Your task to perform on an android device: Open network settings Image 0: 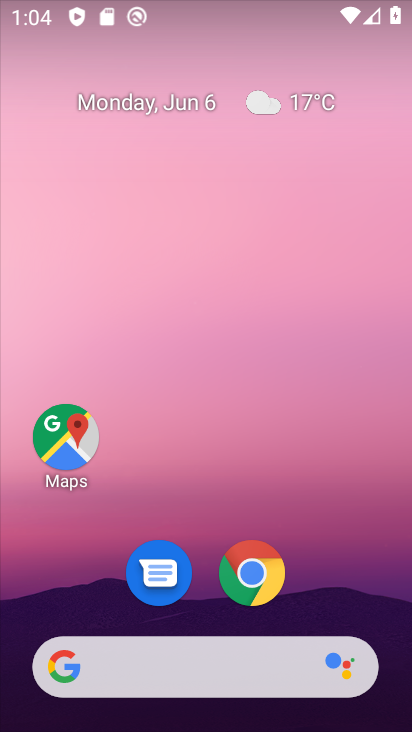
Step 0: drag from (364, 608) to (353, 189)
Your task to perform on an android device: Open network settings Image 1: 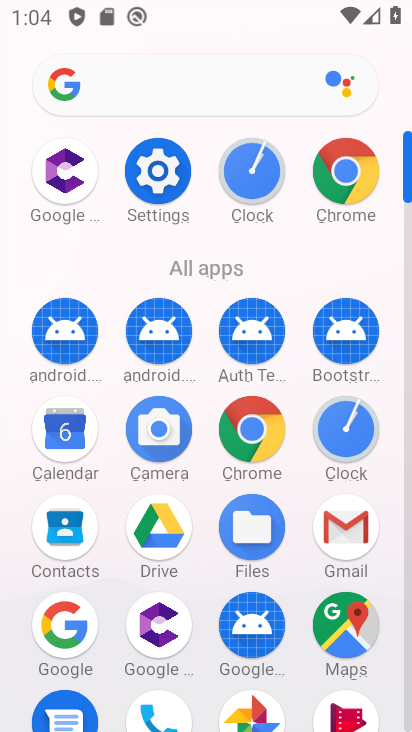
Step 1: click (165, 183)
Your task to perform on an android device: Open network settings Image 2: 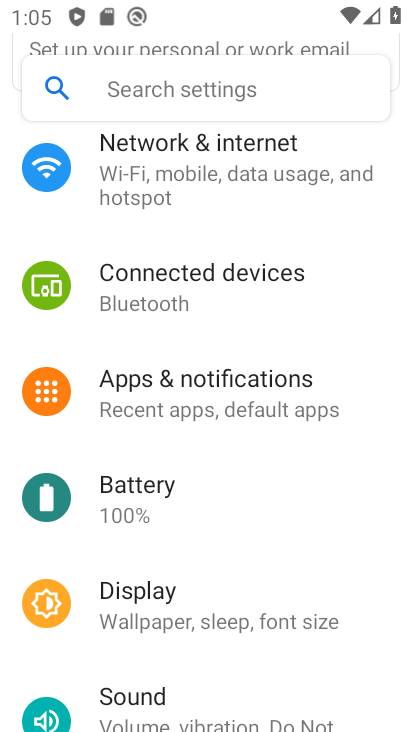
Step 2: drag from (344, 604) to (350, 511)
Your task to perform on an android device: Open network settings Image 3: 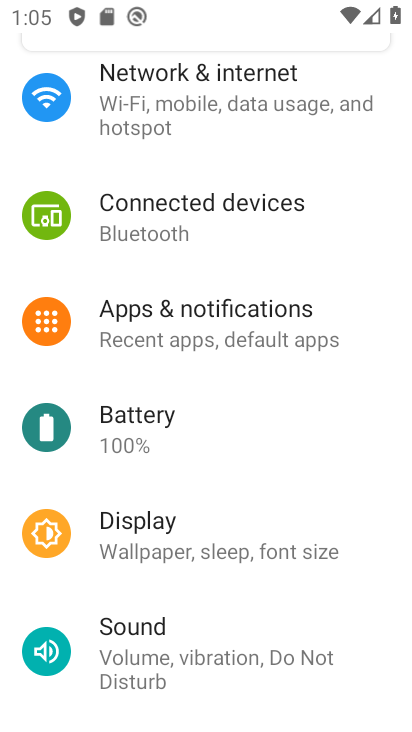
Step 3: drag from (360, 610) to (365, 493)
Your task to perform on an android device: Open network settings Image 4: 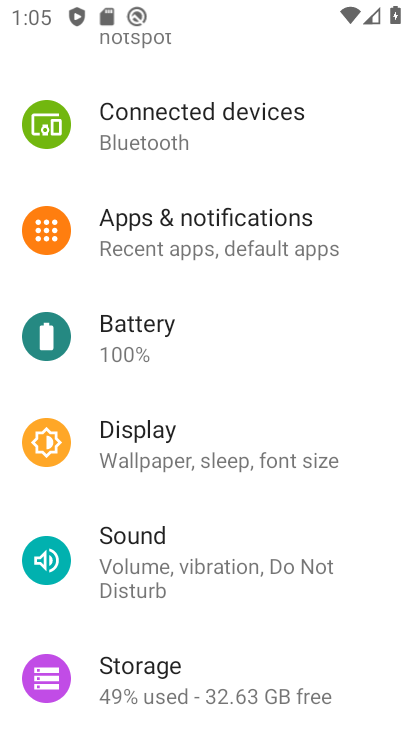
Step 4: drag from (362, 624) to (368, 469)
Your task to perform on an android device: Open network settings Image 5: 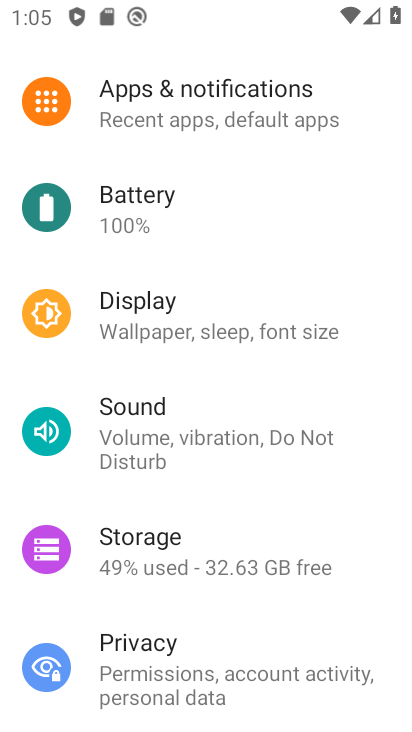
Step 5: drag from (356, 613) to (343, 426)
Your task to perform on an android device: Open network settings Image 6: 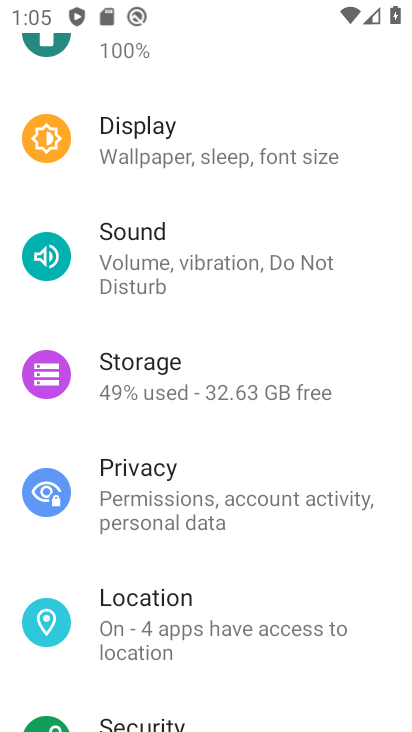
Step 6: drag from (345, 586) to (356, 411)
Your task to perform on an android device: Open network settings Image 7: 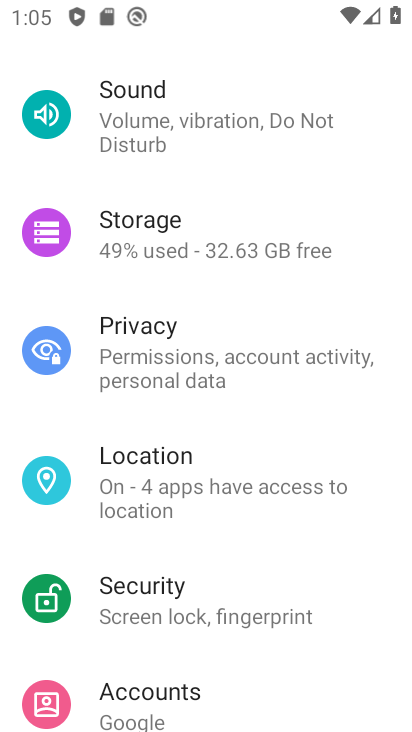
Step 7: drag from (346, 596) to (352, 419)
Your task to perform on an android device: Open network settings Image 8: 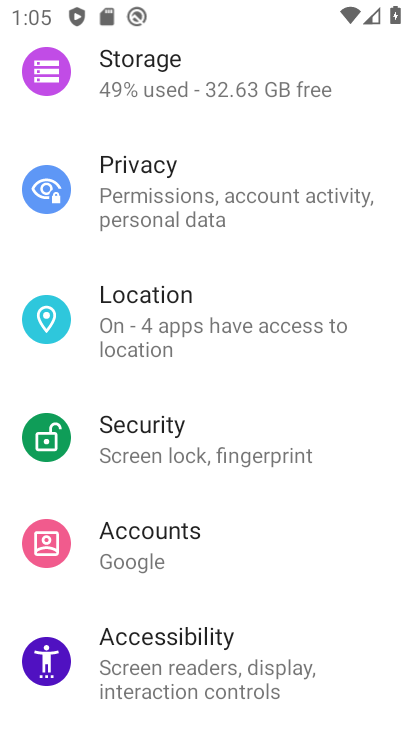
Step 8: drag from (335, 618) to (337, 401)
Your task to perform on an android device: Open network settings Image 9: 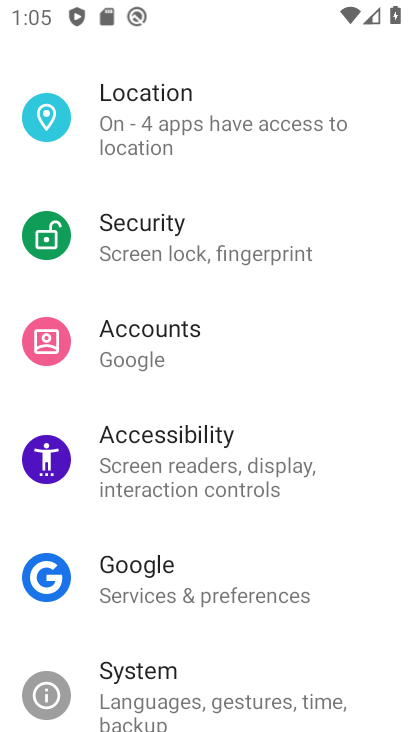
Step 9: drag from (348, 344) to (348, 486)
Your task to perform on an android device: Open network settings Image 10: 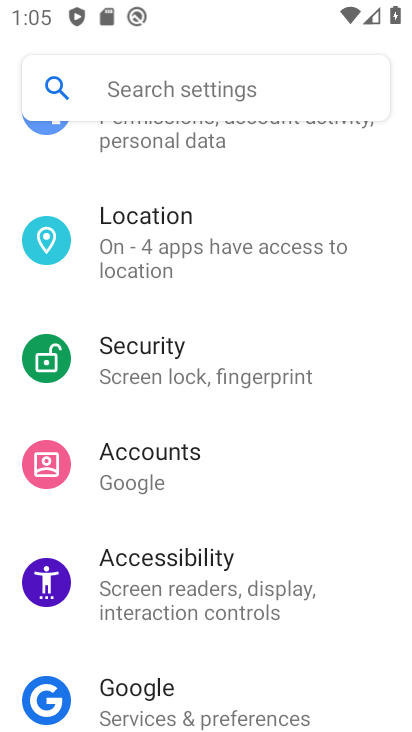
Step 10: drag from (346, 313) to (347, 456)
Your task to perform on an android device: Open network settings Image 11: 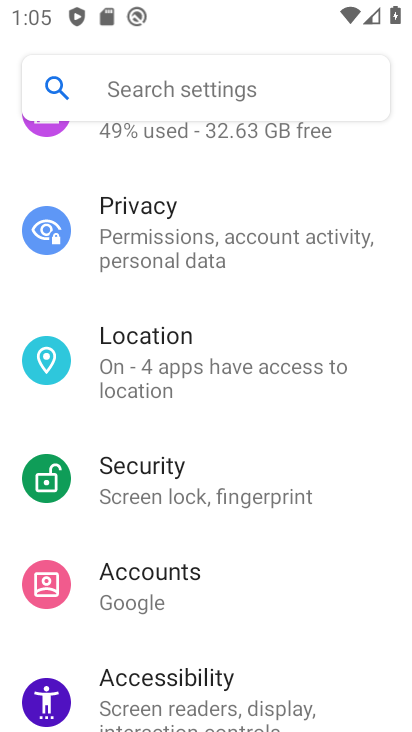
Step 11: drag from (356, 300) to (364, 407)
Your task to perform on an android device: Open network settings Image 12: 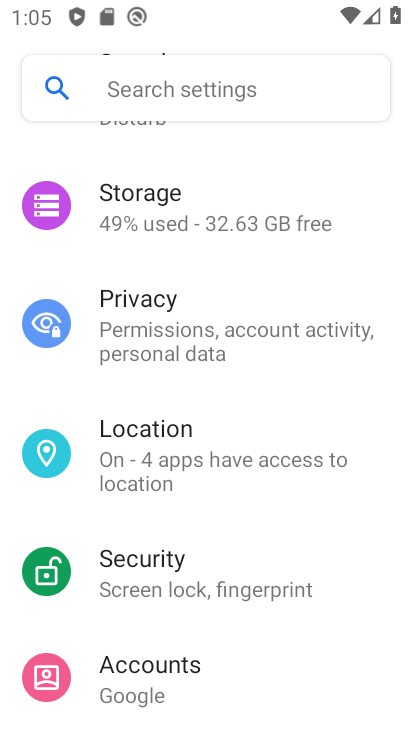
Step 12: drag from (364, 249) to (355, 384)
Your task to perform on an android device: Open network settings Image 13: 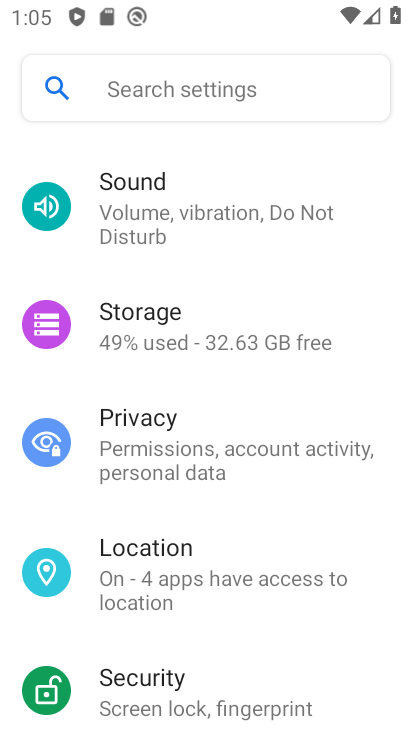
Step 13: drag from (347, 227) to (351, 351)
Your task to perform on an android device: Open network settings Image 14: 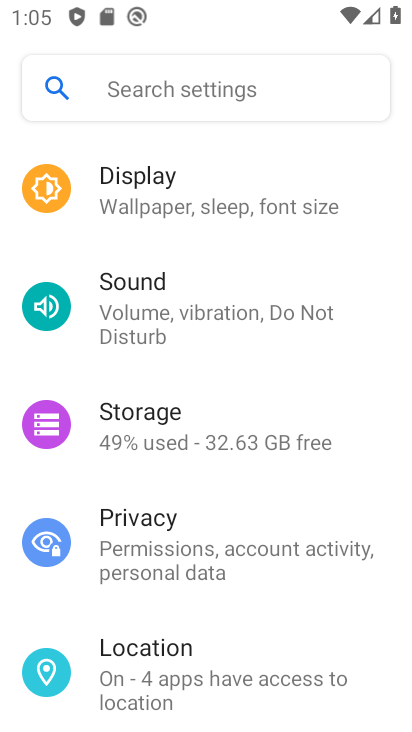
Step 14: drag from (357, 196) to (366, 329)
Your task to perform on an android device: Open network settings Image 15: 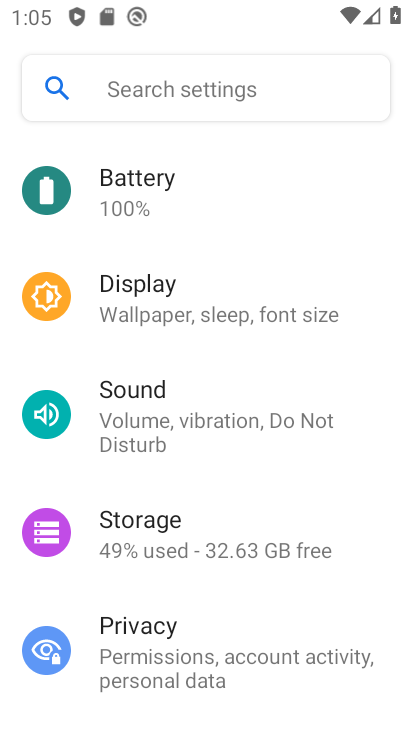
Step 15: drag from (354, 186) to (355, 362)
Your task to perform on an android device: Open network settings Image 16: 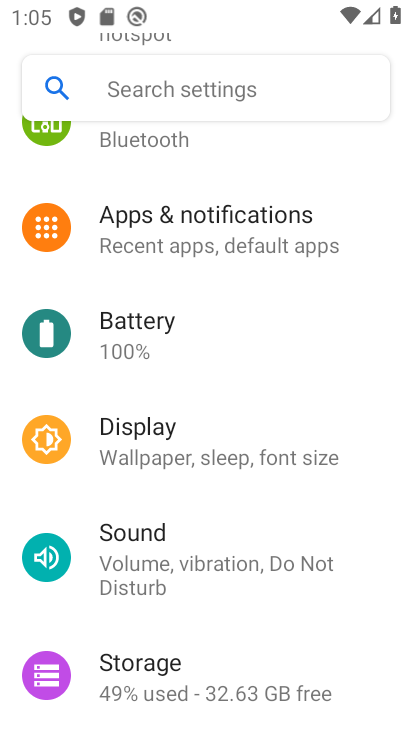
Step 16: drag from (343, 185) to (342, 339)
Your task to perform on an android device: Open network settings Image 17: 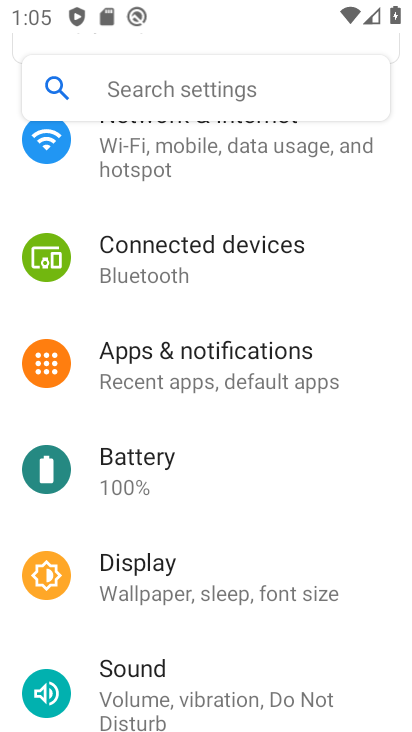
Step 17: drag from (345, 196) to (330, 353)
Your task to perform on an android device: Open network settings Image 18: 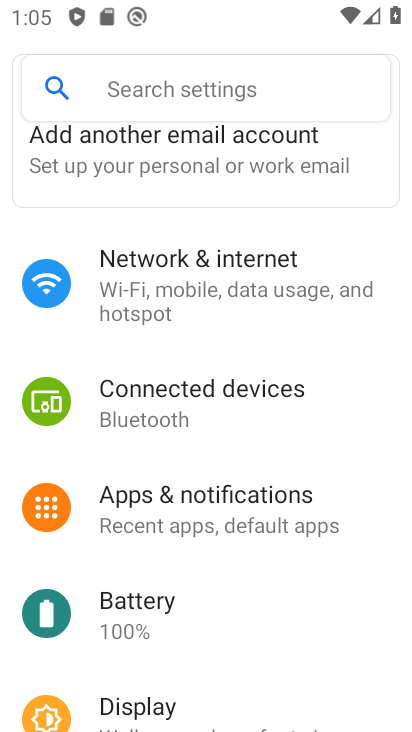
Step 18: click (313, 272)
Your task to perform on an android device: Open network settings Image 19: 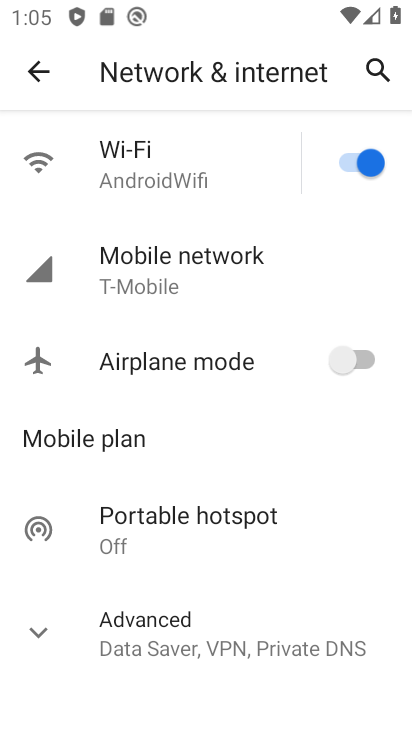
Step 19: task complete